Your task to perform on an android device: empty trash in the gmail app Image 0: 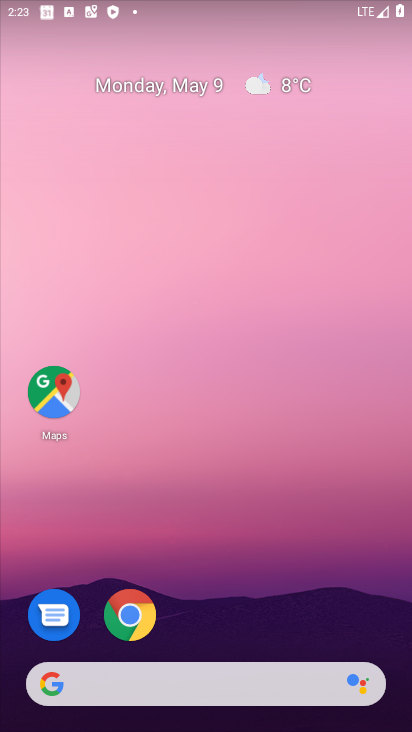
Step 0: drag from (388, 632) to (295, 0)
Your task to perform on an android device: empty trash in the gmail app Image 1: 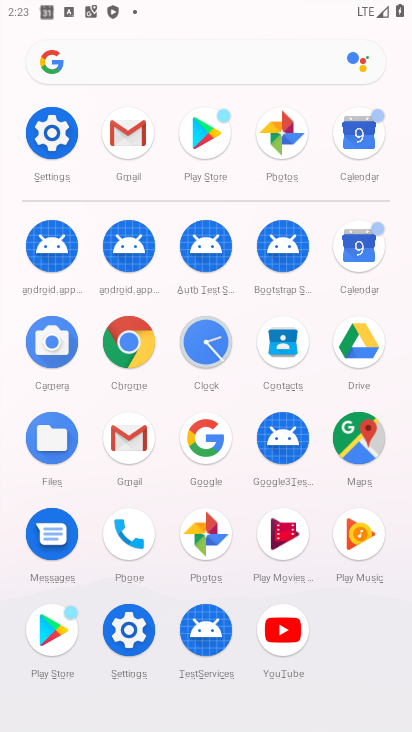
Step 1: click (125, 440)
Your task to perform on an android device: empty trash in the gmail app Image 2: 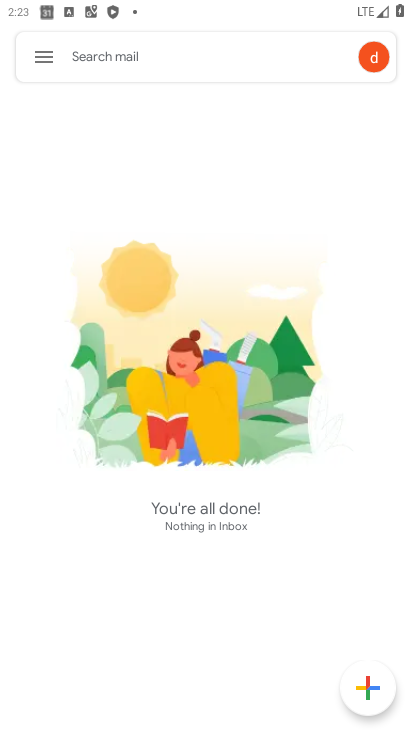
Step 2: click (33, 55)
Your task to perform on an android device: empty trash in the gmail app Image 3: 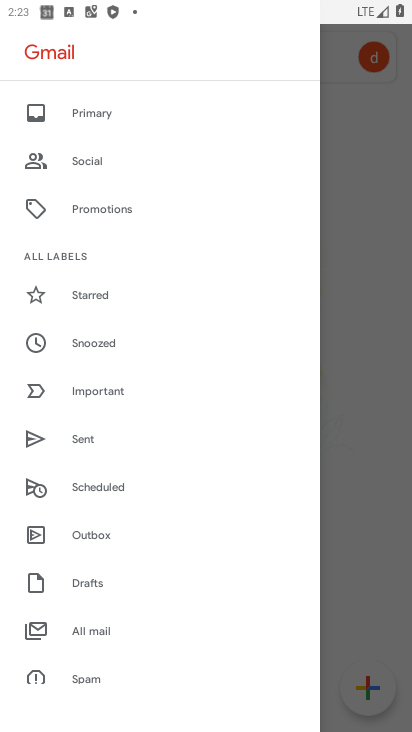
Step 3: drag from (129, 625) to (136, 286)
Your task to perform on an android device: empty trash in the gmail app Image 4: 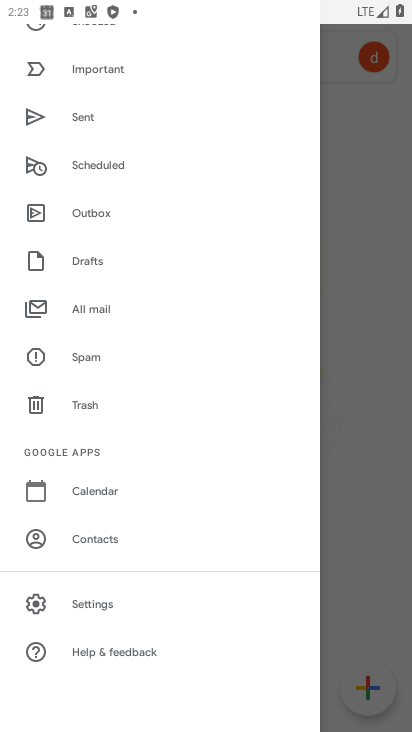
Step 4: click (84, 399)
Your task to perform on an android device: empty trash in the gmail app Image 5: 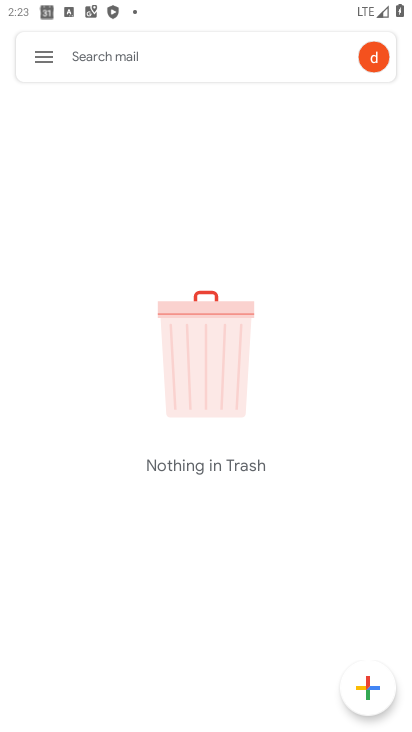
Step 5: task complete